Your task to perform on an android device: Open Google Image 0: 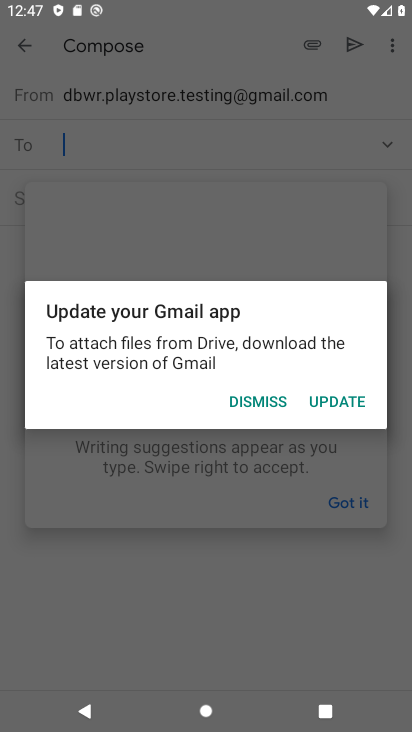
Step 0: press home button
Your task to perform on an android device: Open Google Image 1: 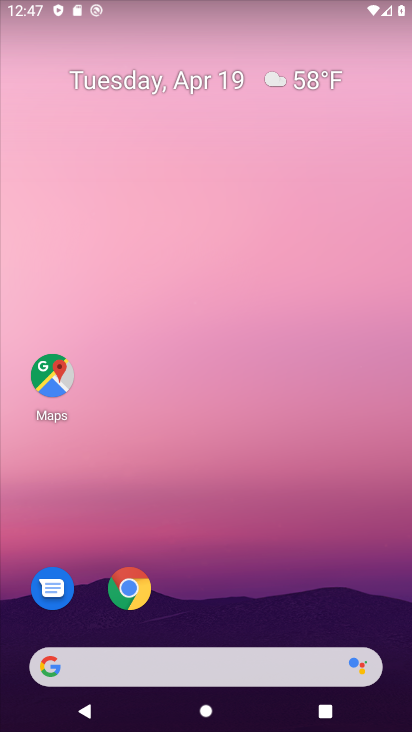
Step 1: drag from (222, 603) to (222, 286)
Your task to perform on an android device: Open Google Image 2: 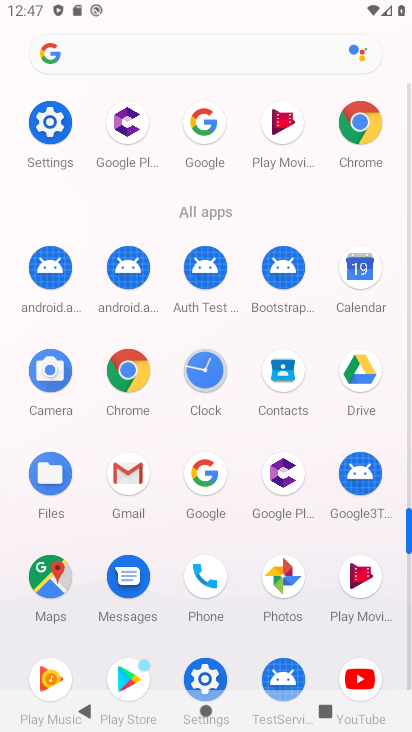
Step 2: click (206, 471)
Your task to perform on an android device: Open Google Image 3: 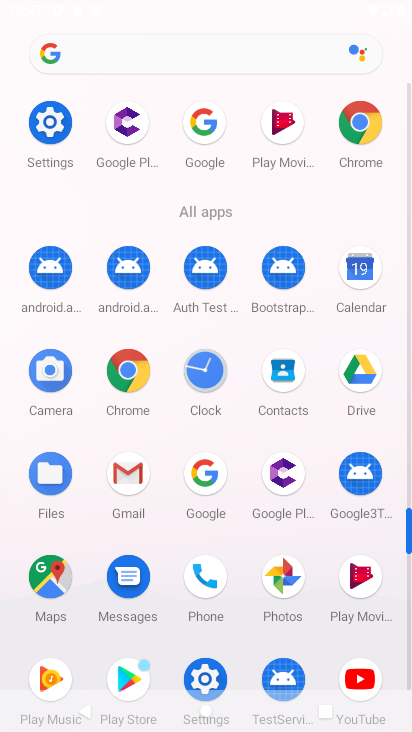
Step 3: click (198, 130)
Your task to perform on an android device: Open Google Image 4: 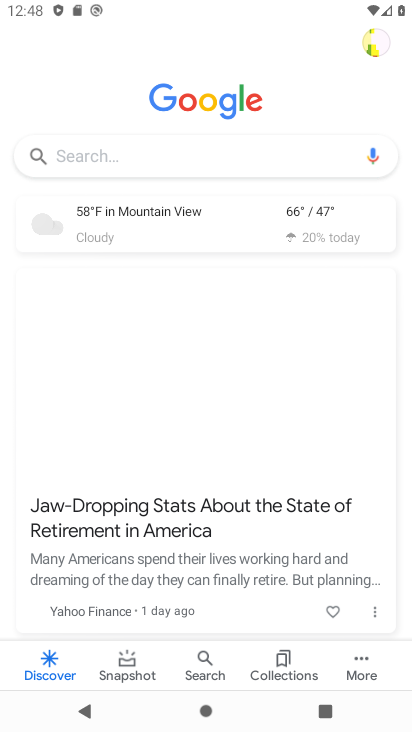
Step 4: task complete